Your task to perform on an android device: Show me the alarms in the clock app Image 0: 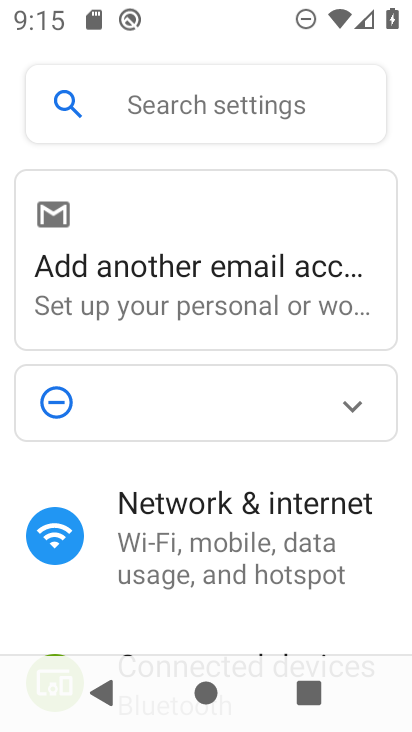
Step 0: press home button
Your task to perform on an android device: Show me the alarms in the clock app Image 1: 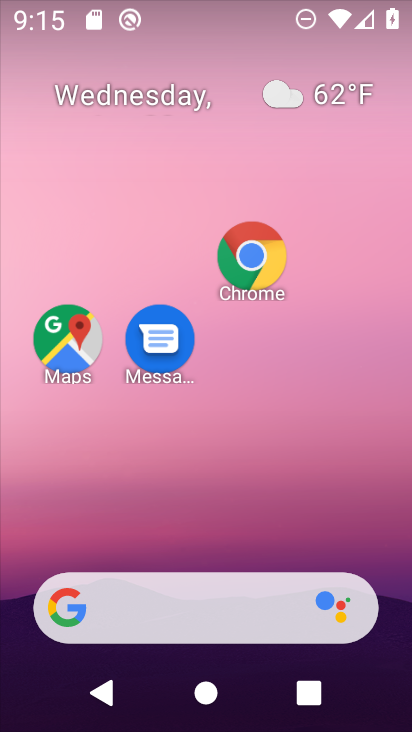
Step 1: drag from (244, 473) to (213, 110)
Your task to perform on an android device: Show me the alarms in the clock app Image 2: 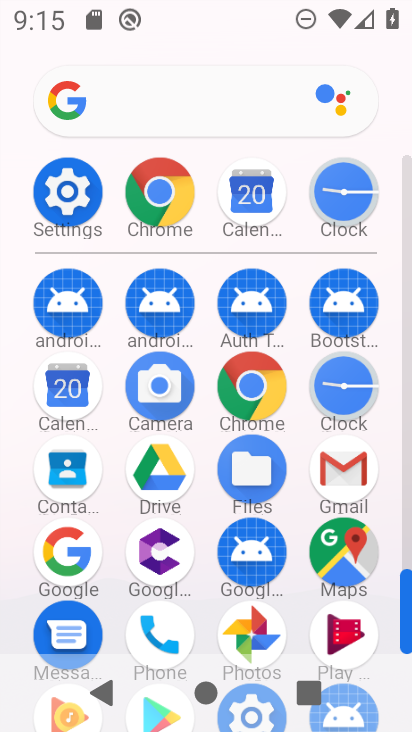
Step 2: click (340, 385)
Your task to perform on an android device: Show me the alarms in the clock app Image 3: 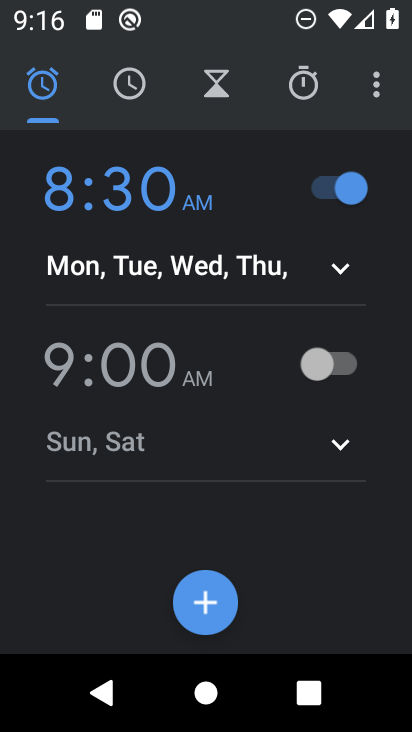
Step 3: task complete